Your task to perform on an android device: Open Youtube and go to "Your channel" Image 0: 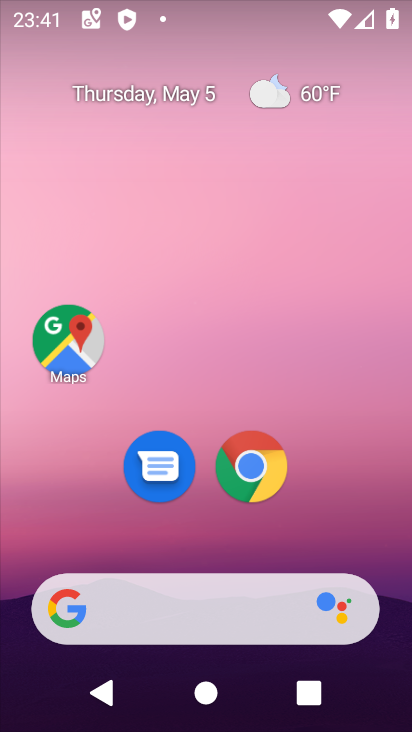
Step 0: drag from (199, 573) to (243, 105)
Your task to perform on an android device: Open Youtube and go to "Your channel" Image 1: 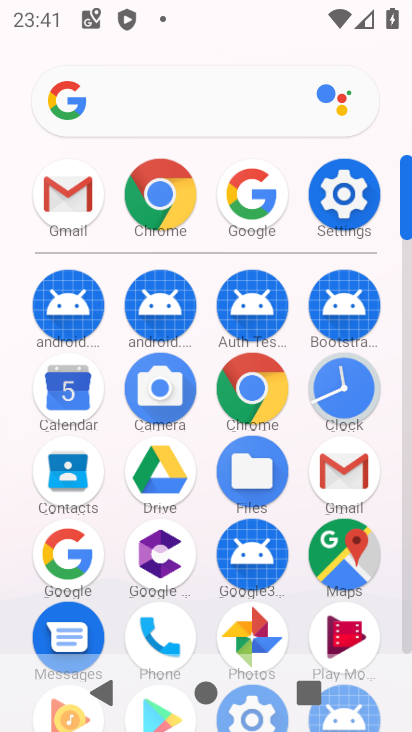
Step 1: drag from (221, 638) to (214, 229)
Your task to perform on an android device: Open Youtube and go to "Your channel" Image 2: 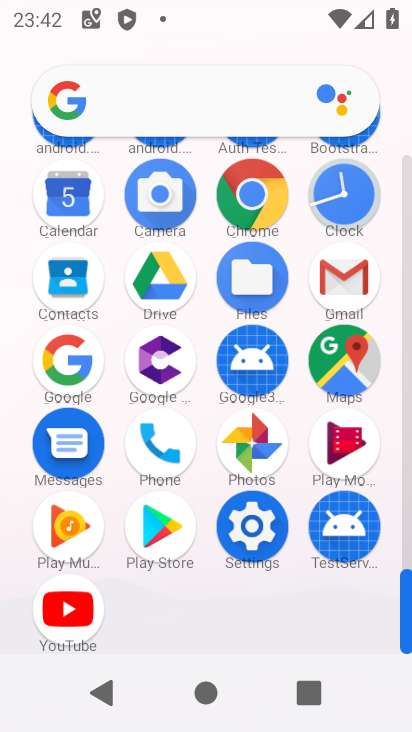
Step 2: click (60, 607)
Your task to perform on an android device: Open Youtube and go to "Your channel" Image 3: 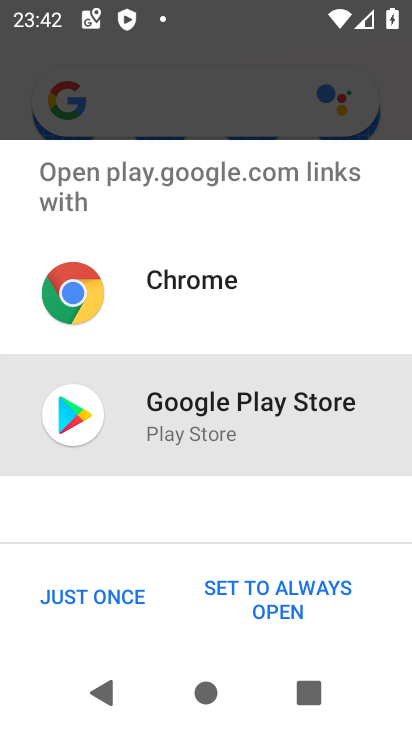
Step 3: click (19, 120)
Your task to perform on an android device: Open Youtube and go to "Your channel" Image 4: 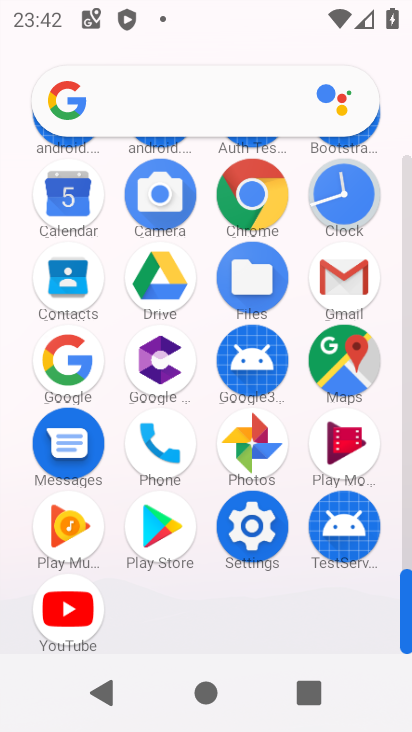
Step 4: click (81, 615)
Your task to perform on an android device: Open Youtube and go to "Your channel" Image 5: 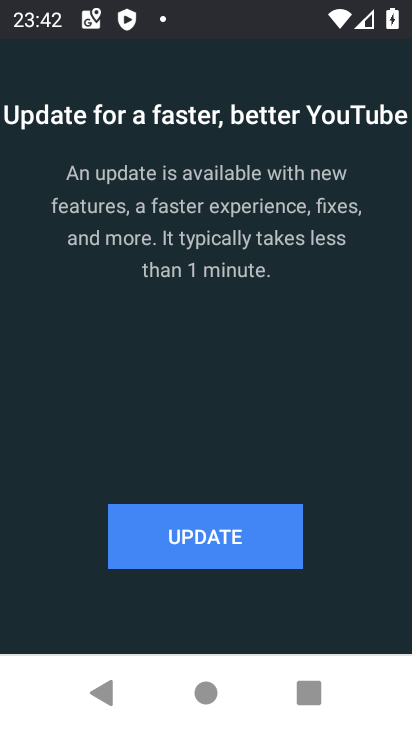
Step 5: click (230, 542)
Your task to perform on an android device: Open Youtube and go to "Your channel" Image 6: 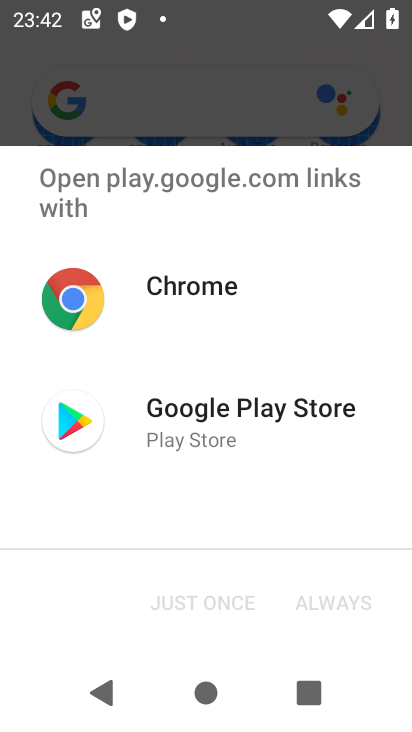
Step 6: click (147, 443)
Your task to perform on an android device: Open Youtube and go to "Your channel" Image 7: 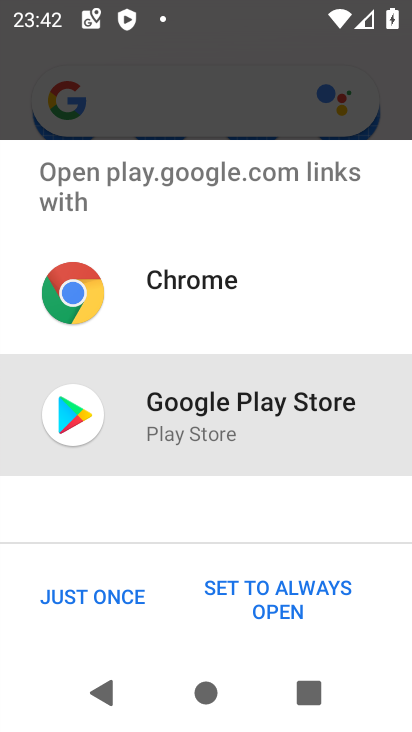
Step 7: click (231, 424)
Your task to perform on an android device: Open Youtube and go to "Your channel" Image 8: 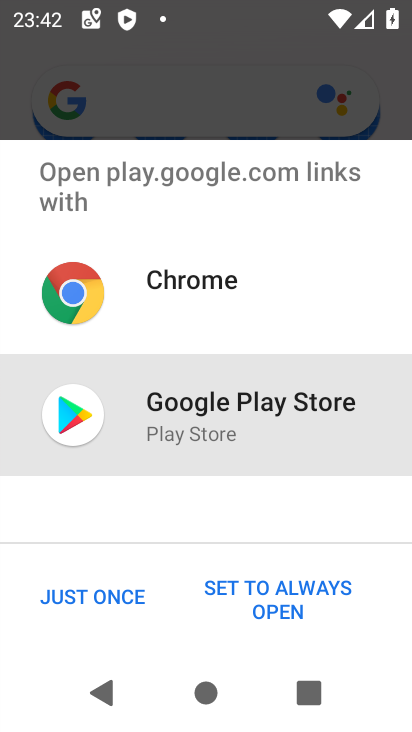
Step 8: click (300, 595)
Your task to perform on an android device: Open Youtube and go to "Your channel" Image 9: 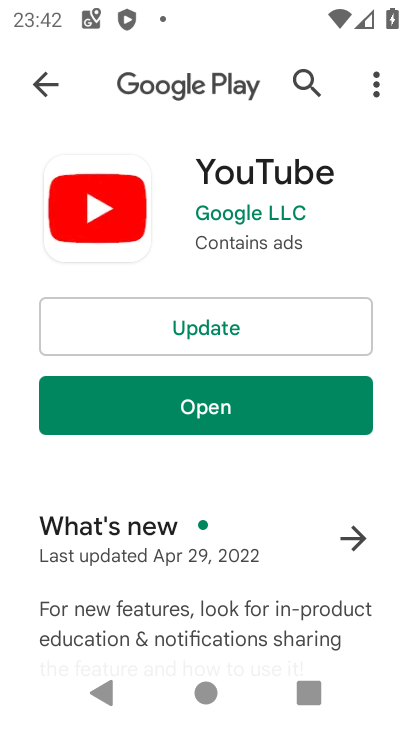
Step 9: click (190, 325)
Your task to perform on an android device: Open Youtube and go to "Your channel" Image 10: 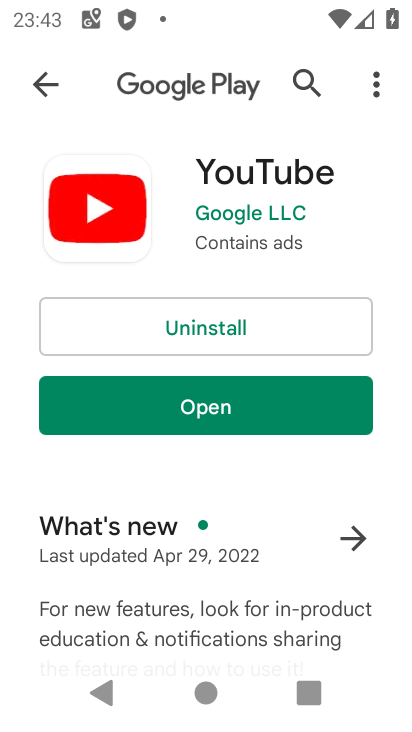
Step 10: click (209, 410)
Your task to perform on an android device: Open Youtube and go to "Your channel" Image 11: 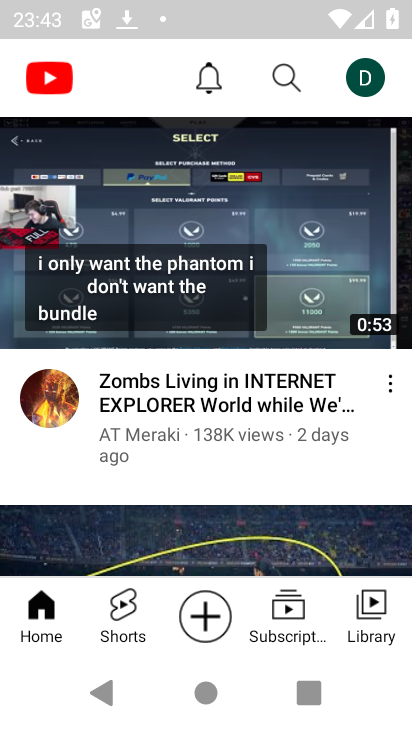
Step 11: click (370, 84)
Your task to perform on an android device: Open Youtube and go to "Your channel" Image 12: 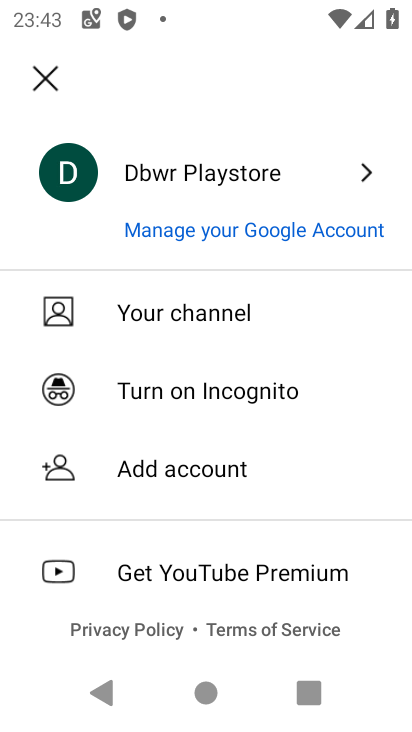
Step 12: click (220, 322)
Your task to perform on an android device: Open Youtube and go to "Your channel" Image 13: 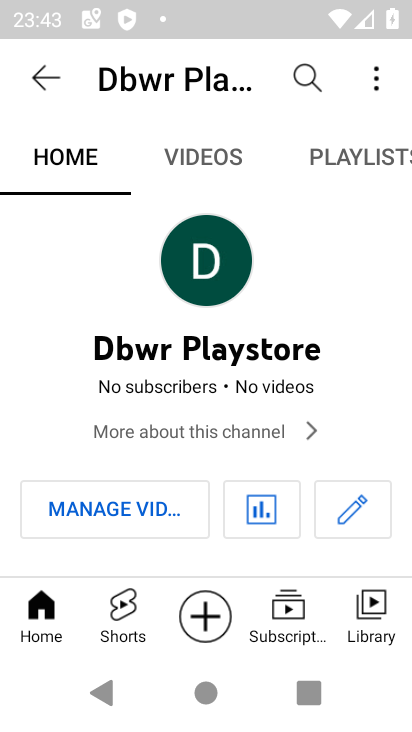
Step 13: task complete